Your task to perform on an android device: Search for sushi restaurants on Maps Image 0: 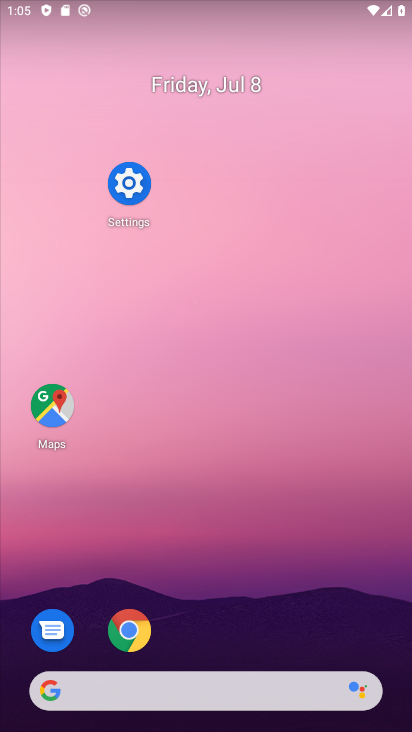
Step 0: click (41, 400)
Your task to perform on an android device: Search for sushi restaurants on Maps Image 1: 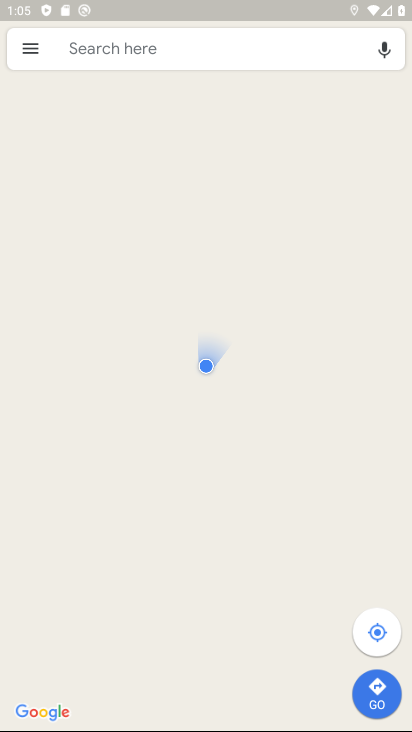
Step 1: click (133, 51)
Your task to perform on an android device: Search for sushi restaurants on Maps Image 2: 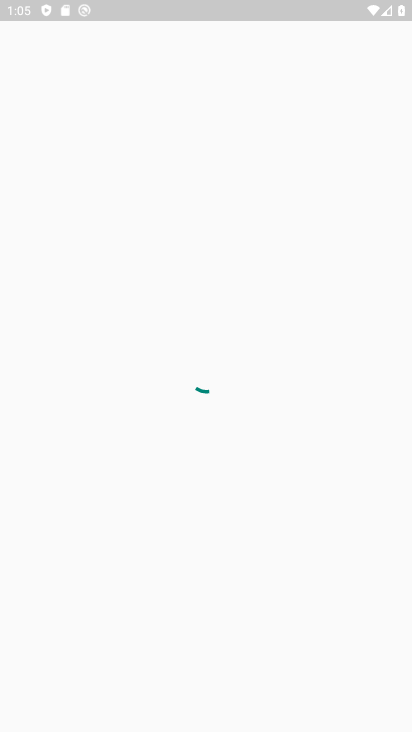
Step 2: type "sushi "
Your task to perform on an android device: Search for sushi restaurants on Maps Image 3: 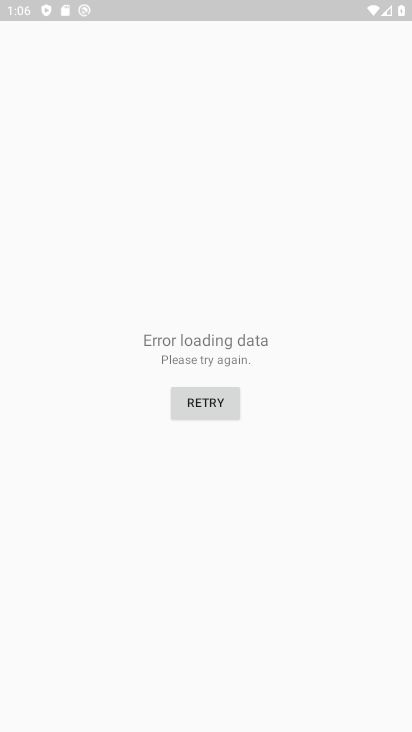
Step 3: task complete